Your task to perform on an android device: Go to battery settings Image 0: 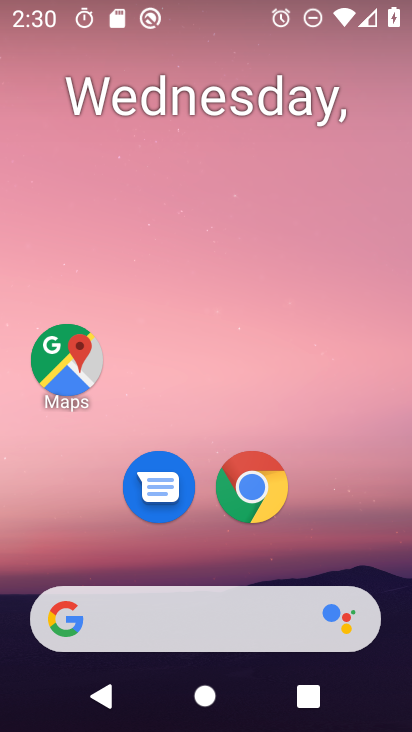
Step 0: drag from (129, 558) to (289, 27)
Your task to perform on an android device: Go to battery settings Image 1: 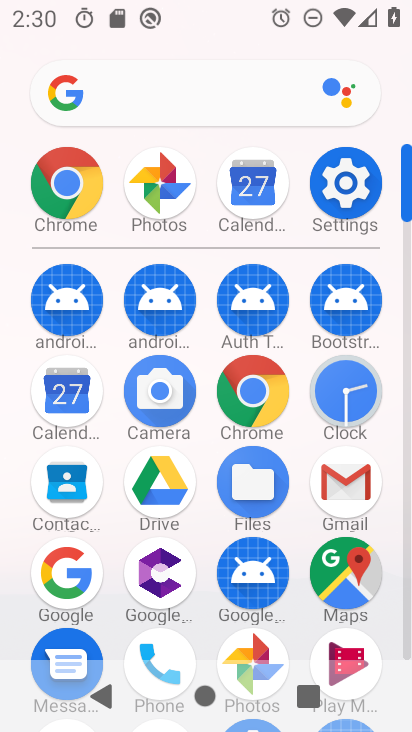
Step 1: click (351, 177)
Your task to perform on an android device: Go to battery settings Image 2: 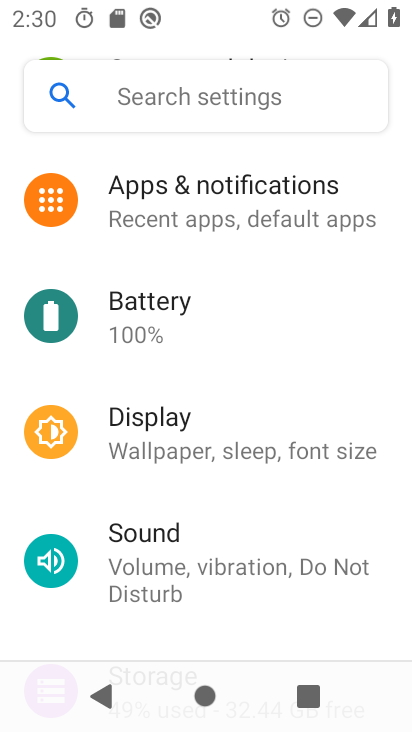
Step 2: click (150, 301)
Your task to perform on an android device: Go to battery settings Image 3: 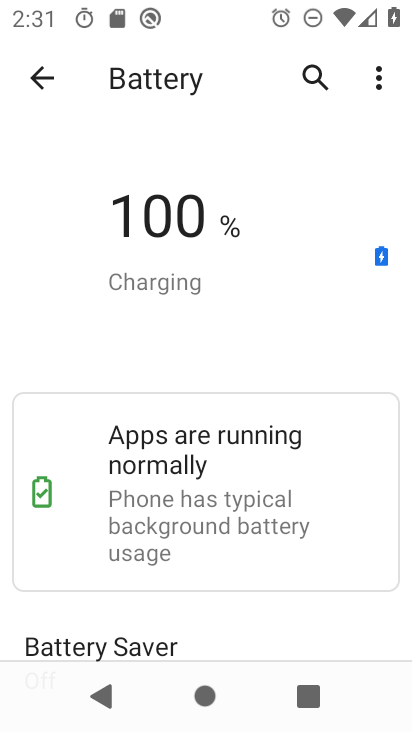
Step 3: task complete